Your task to perform on an android device: What's the weather today? Image 0: 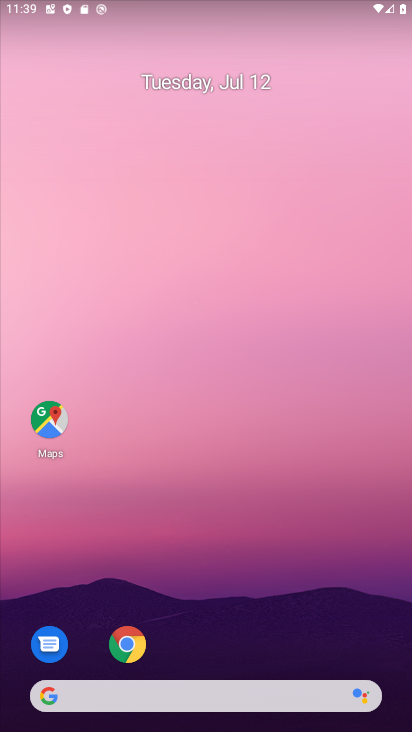
Step 0: click (203, 704)
Your task to perform on an android device: What's the weather today? Image 1: 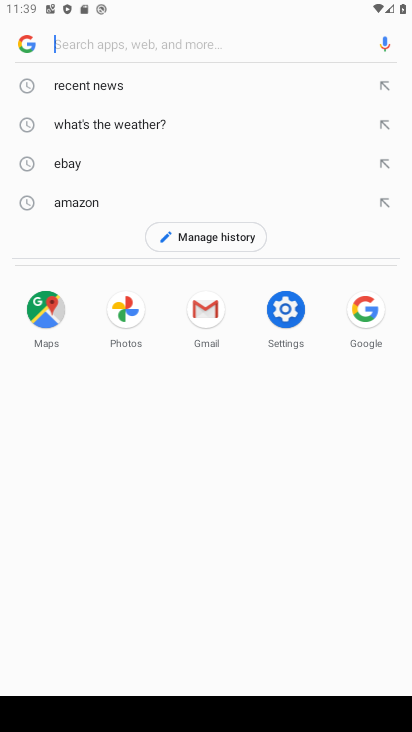
Step 1: type "What's the weather today?"
Your task to perform on an android device: What's the weather today? Image 2: 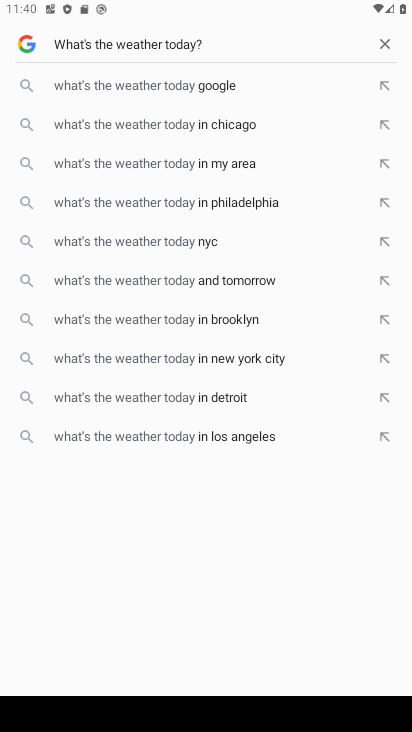
Step 2: press enter
Your task to perform on an android device: What's the weather today? Image 3: 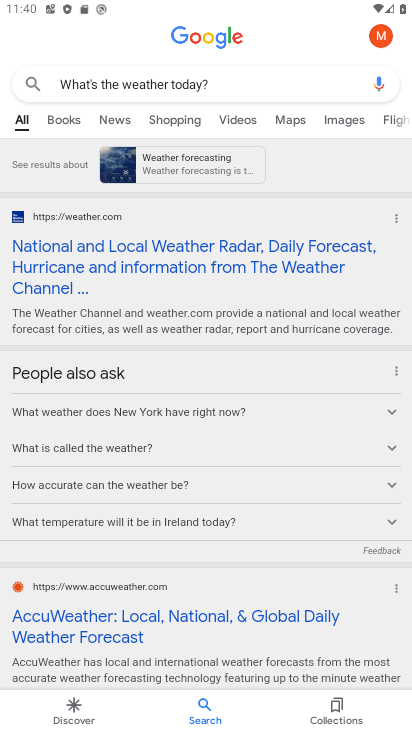
Step 3: task complete